Your task to perform on an android device: change notifications settings Image 0: 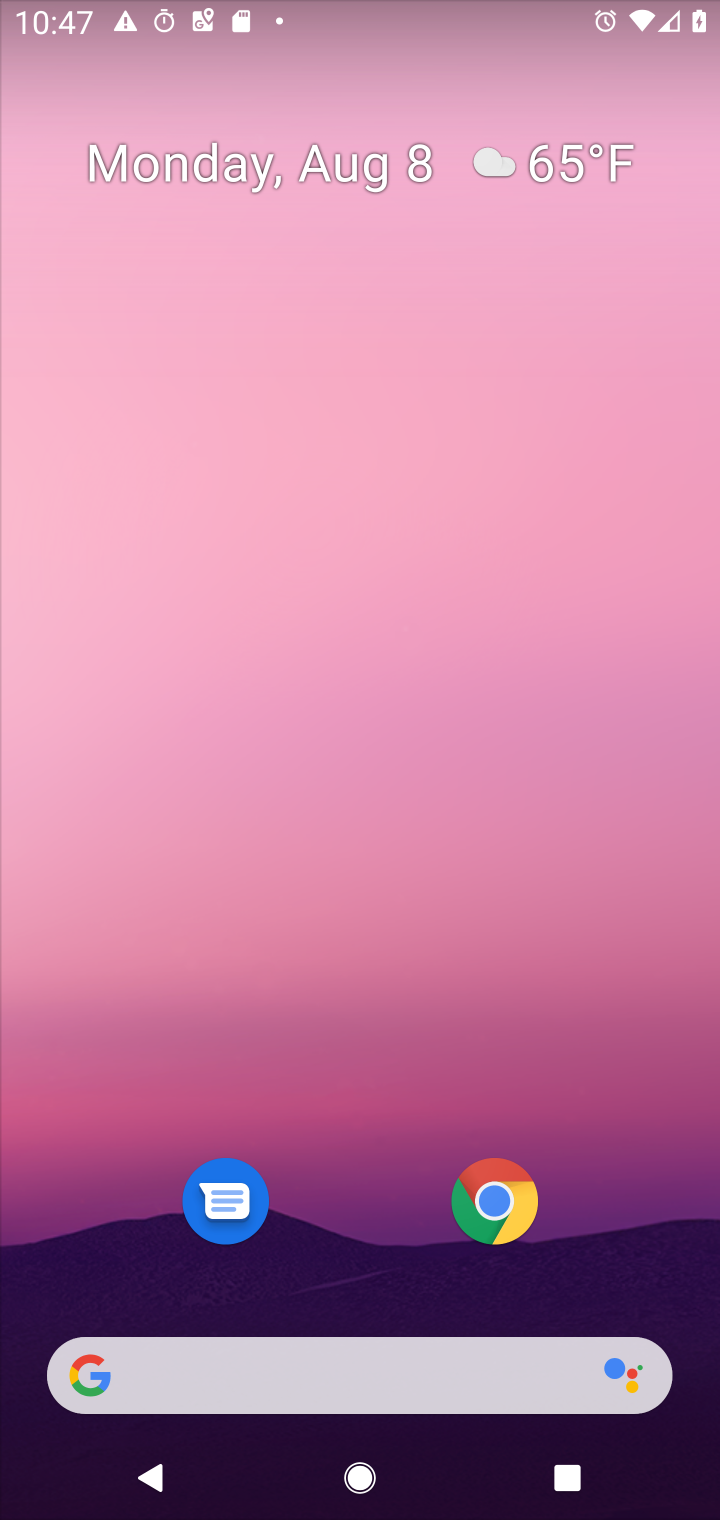
Step 0: press home button
Your task to perform on an android device: change notifications settings Image 1: 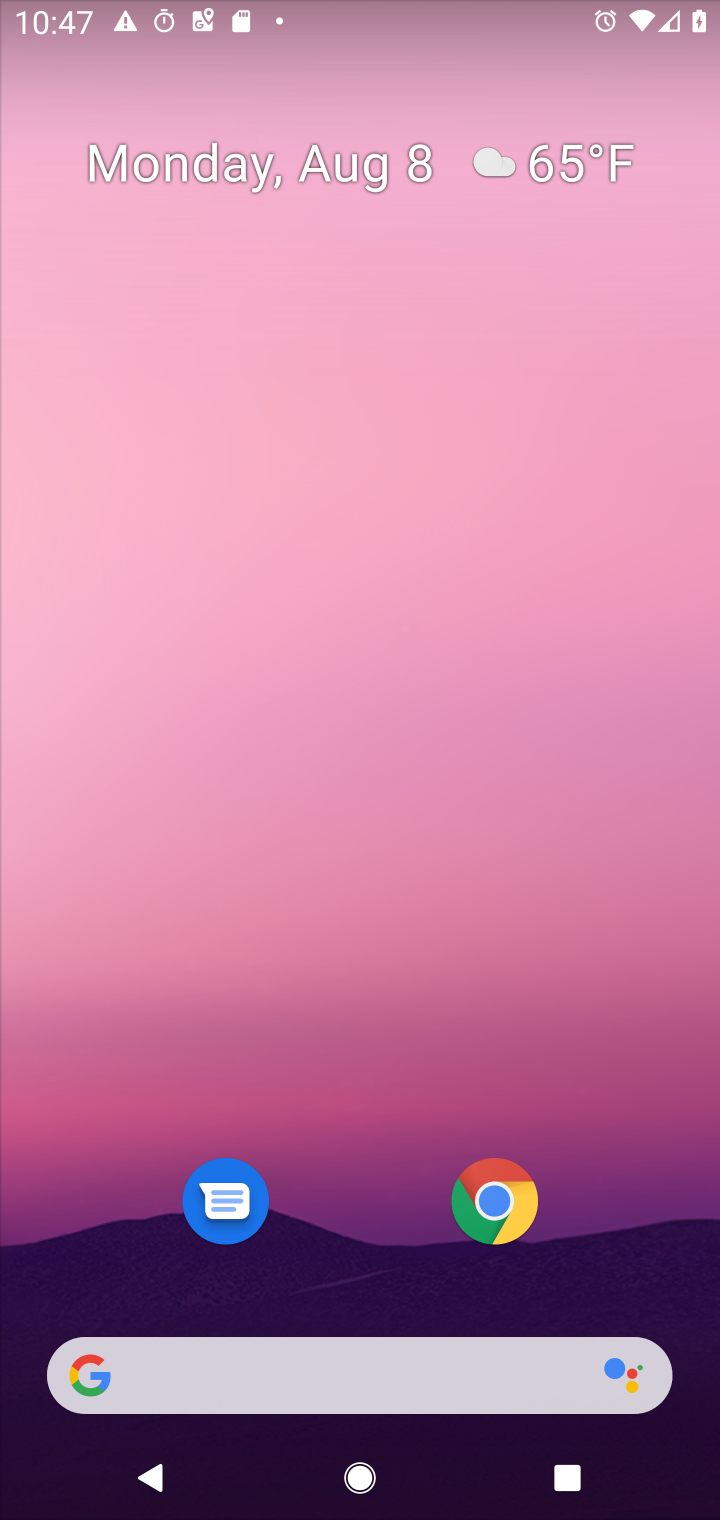
Step 1: drag from (383, 1177) to (410, 255)
Your task to perform on an android device: change notifications settings Image 2: 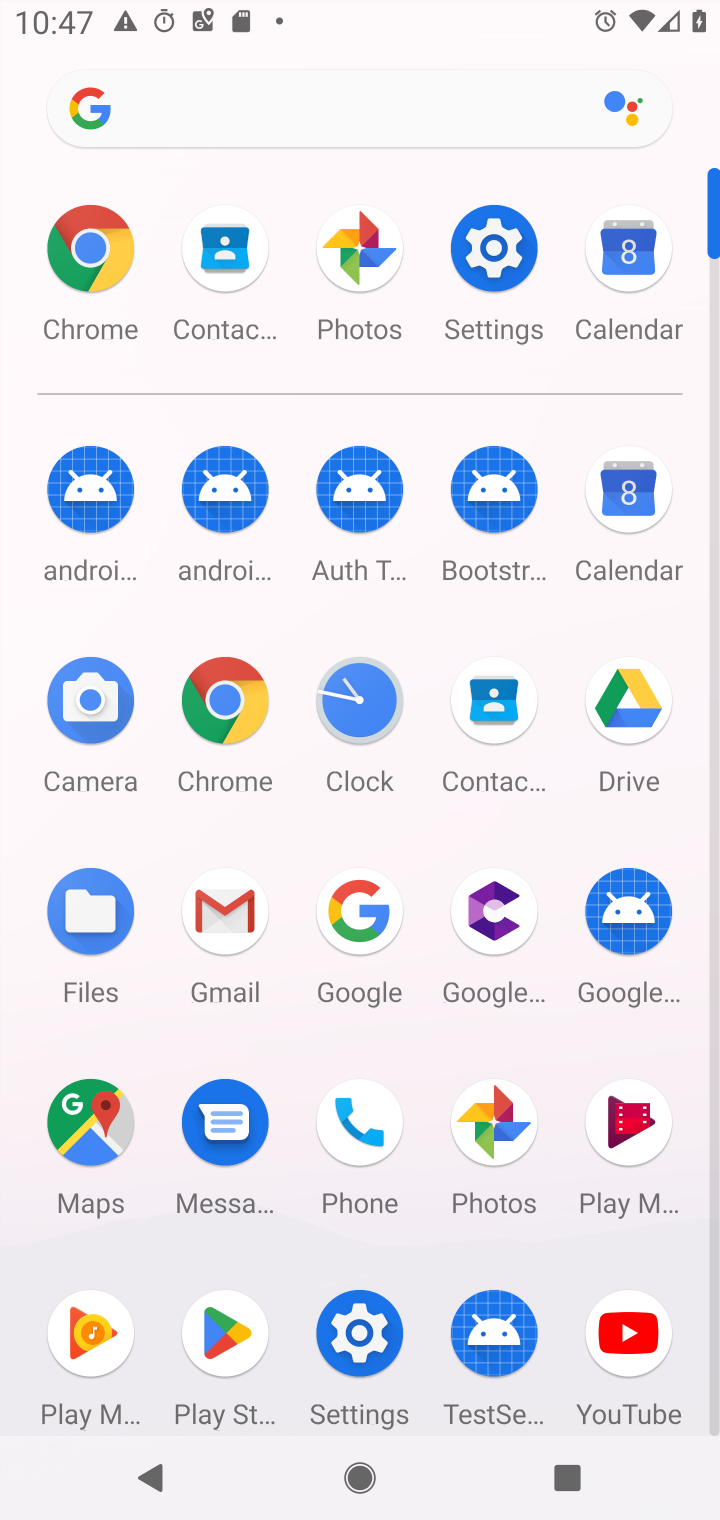
Step 2: click (496, 243)
Your task to perform on an android device: change notifications settings Image 3: 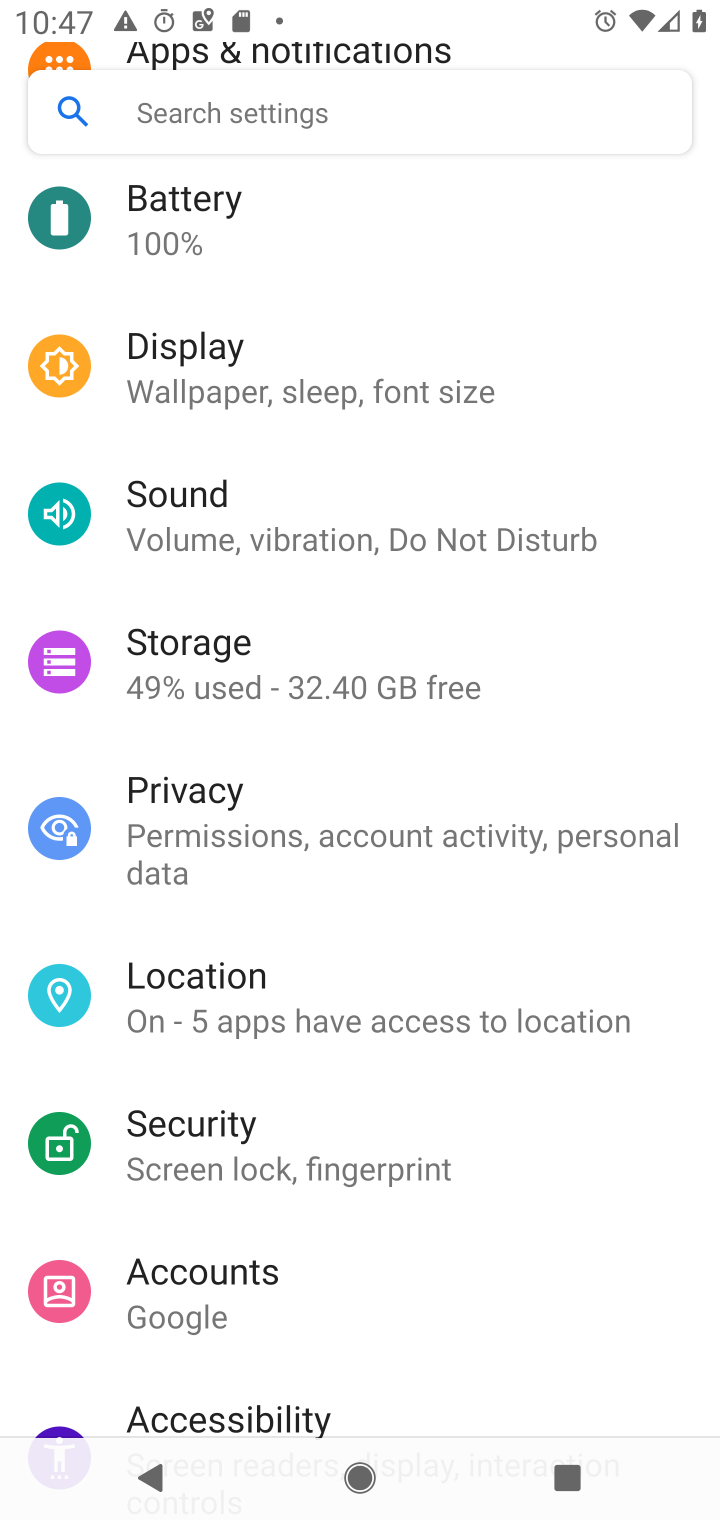
Step 3: drag from (608, 366) to (637, 577)
Your task to perform on an android device: change notifications settings Image 4: 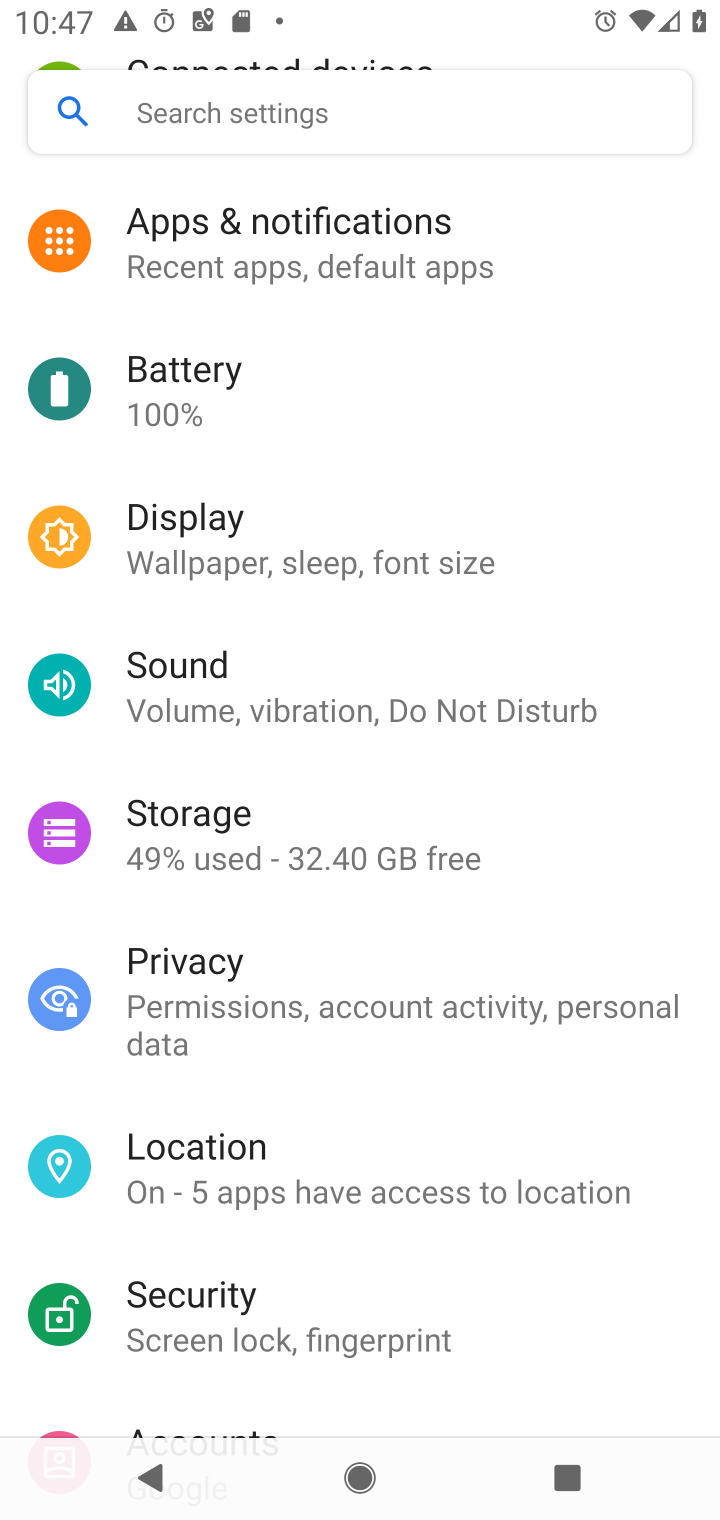
Step 4: drag from (608, 342) to (636, 493)
Your task to perform on an android device: change notifications settings Image 5: 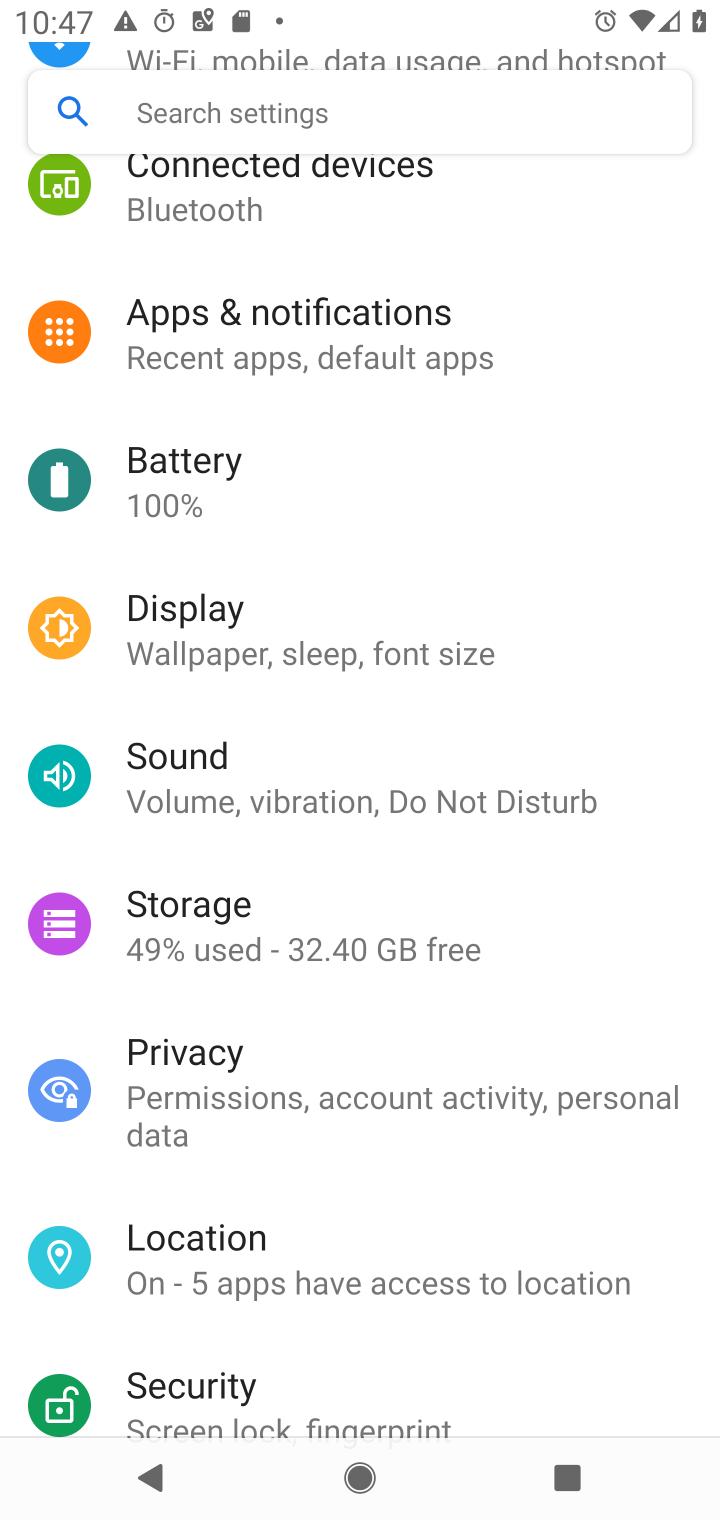
Step 5: drag from (613, 279) to (624, 499)
Your task to perform on an android device: change notifications settings Image 6: 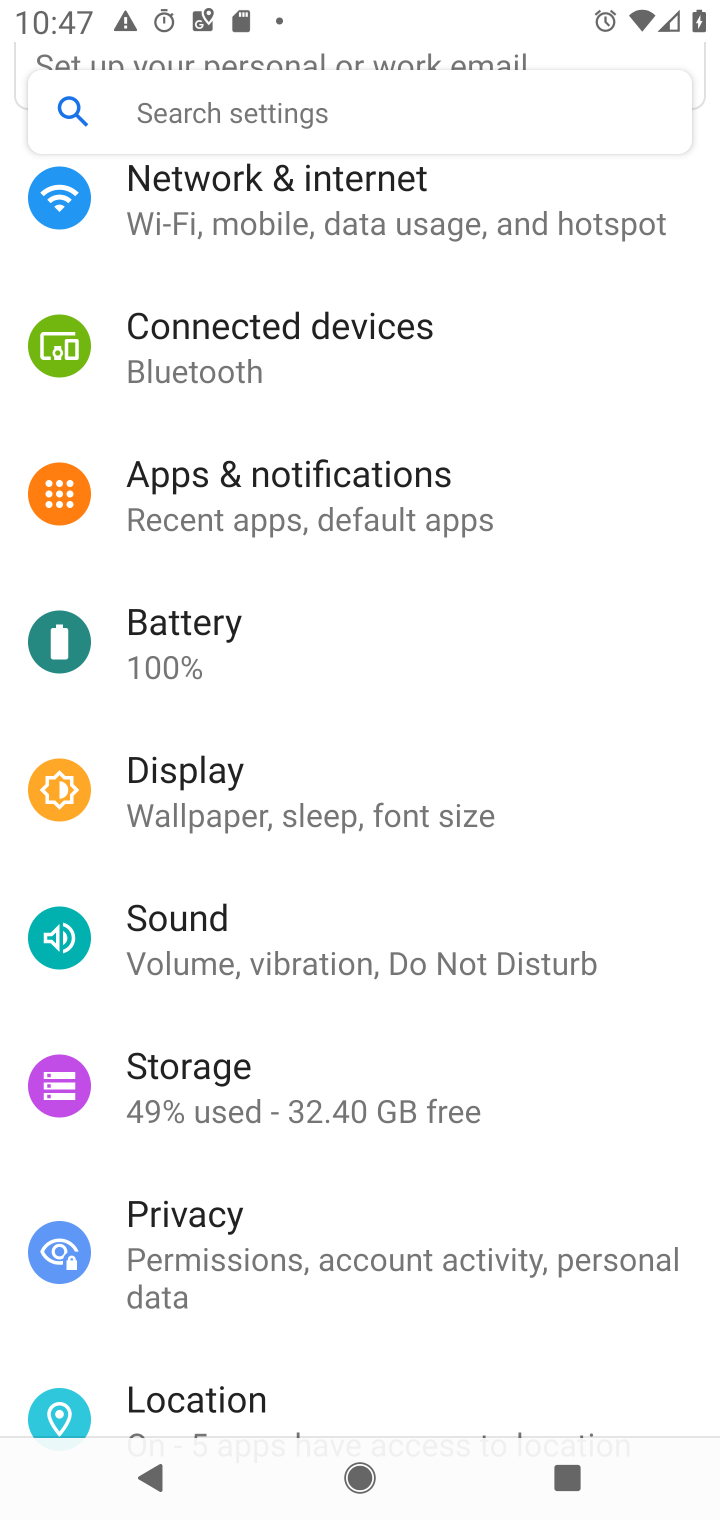
Step 6: drag from (623, 435) to (621, 594)
Your task to perform on an android device: change notifications settings Image 7: 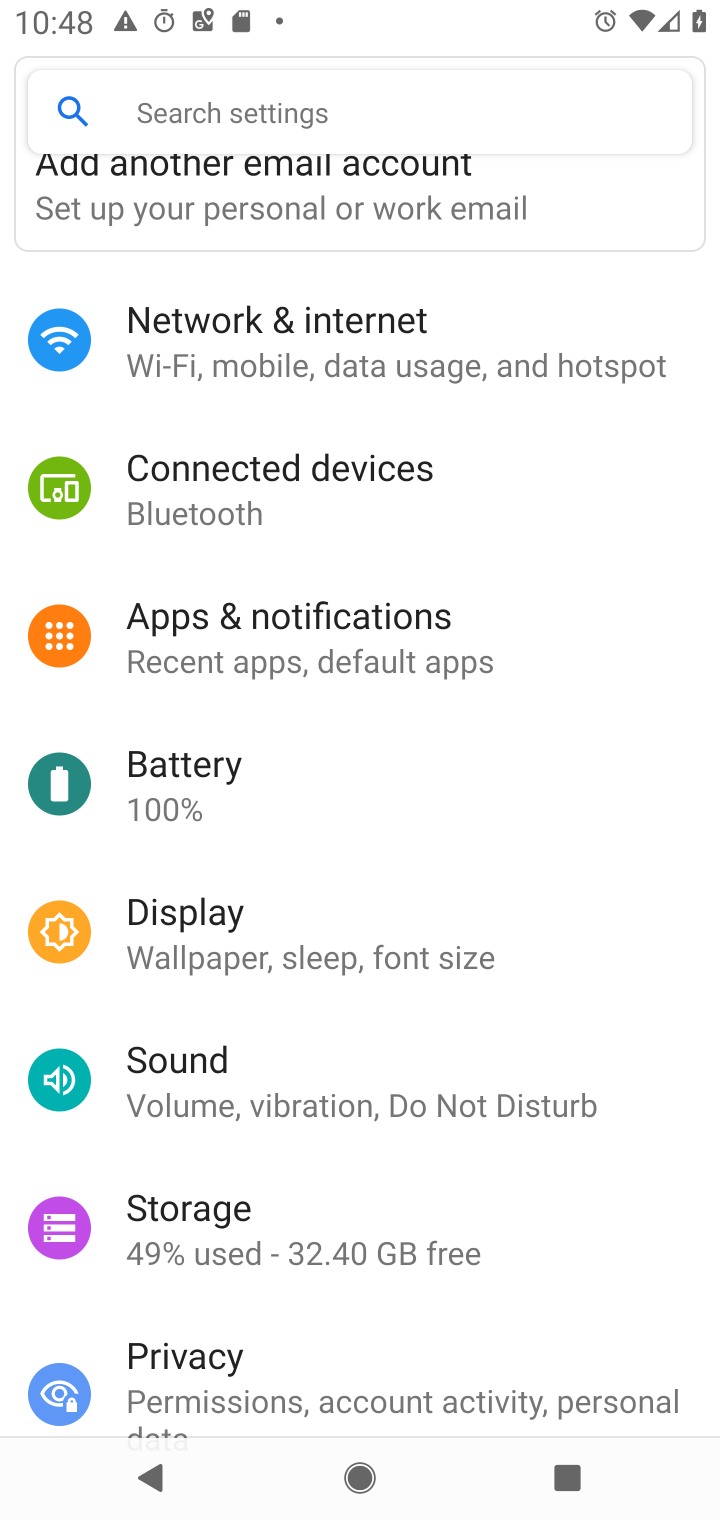
Step 7: click (479, 649)
Your task to perform on an android device: change notifications settings Image 8: 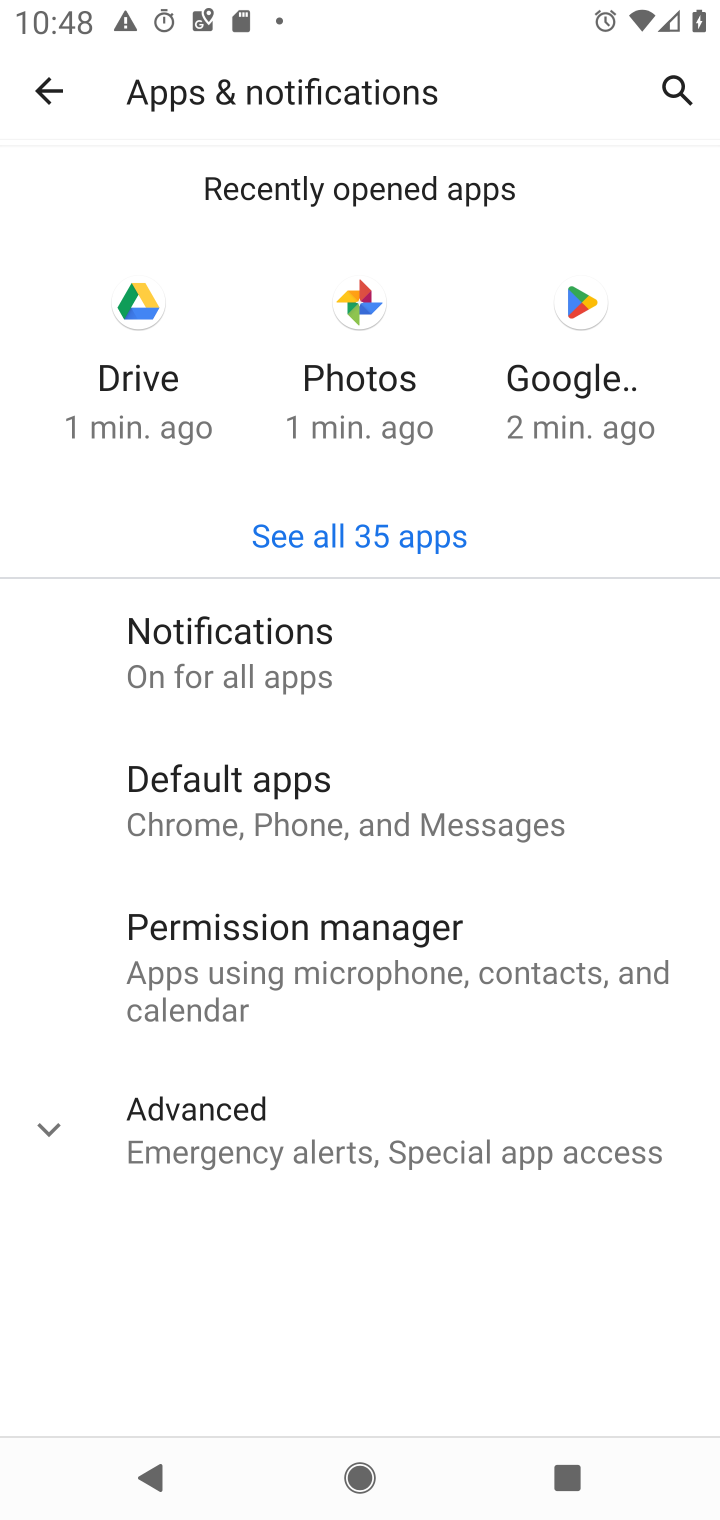
Step 8: click (250, 648)
Your task to perform on an android device: change notifications settings Image 9: 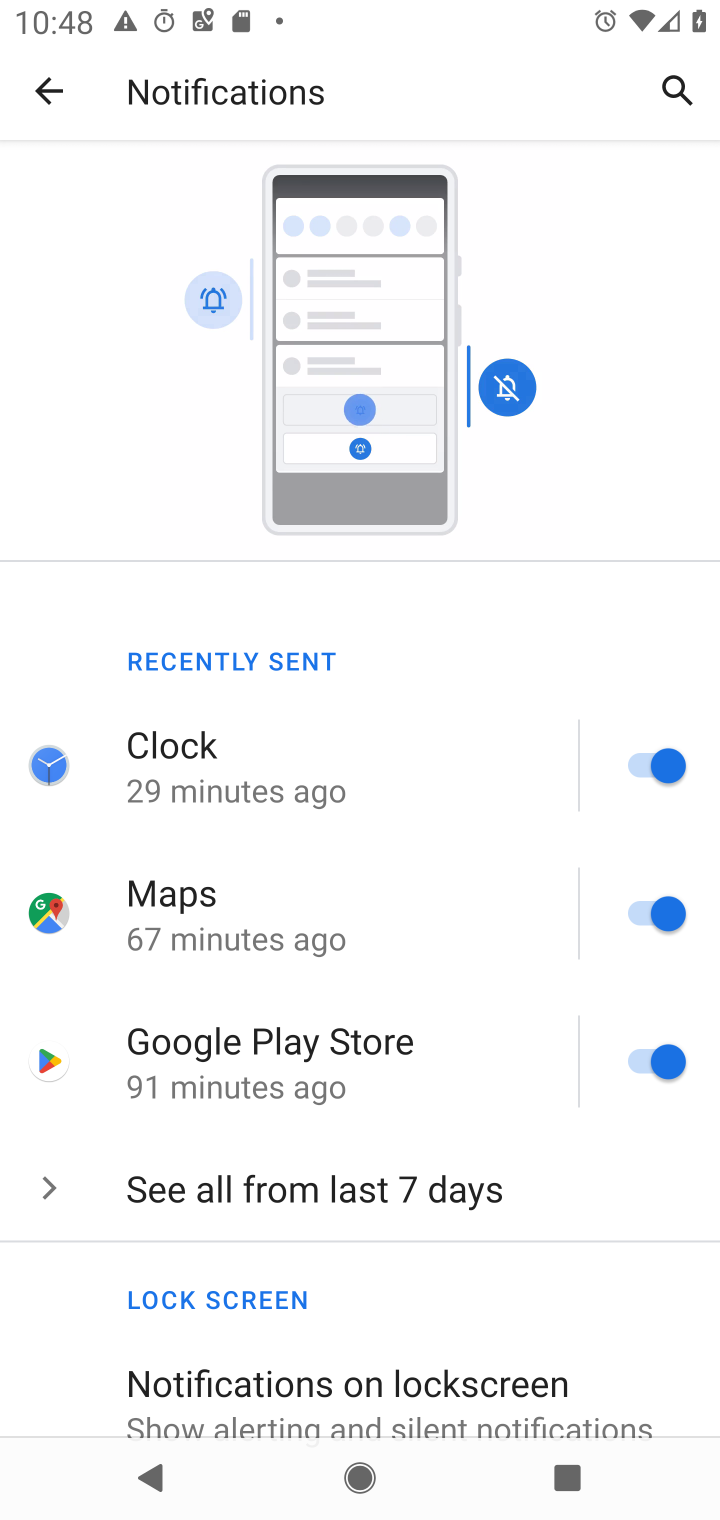
Step 9: click (671, 789)
Your task to perform on an android device: change notifications settings Image 10: 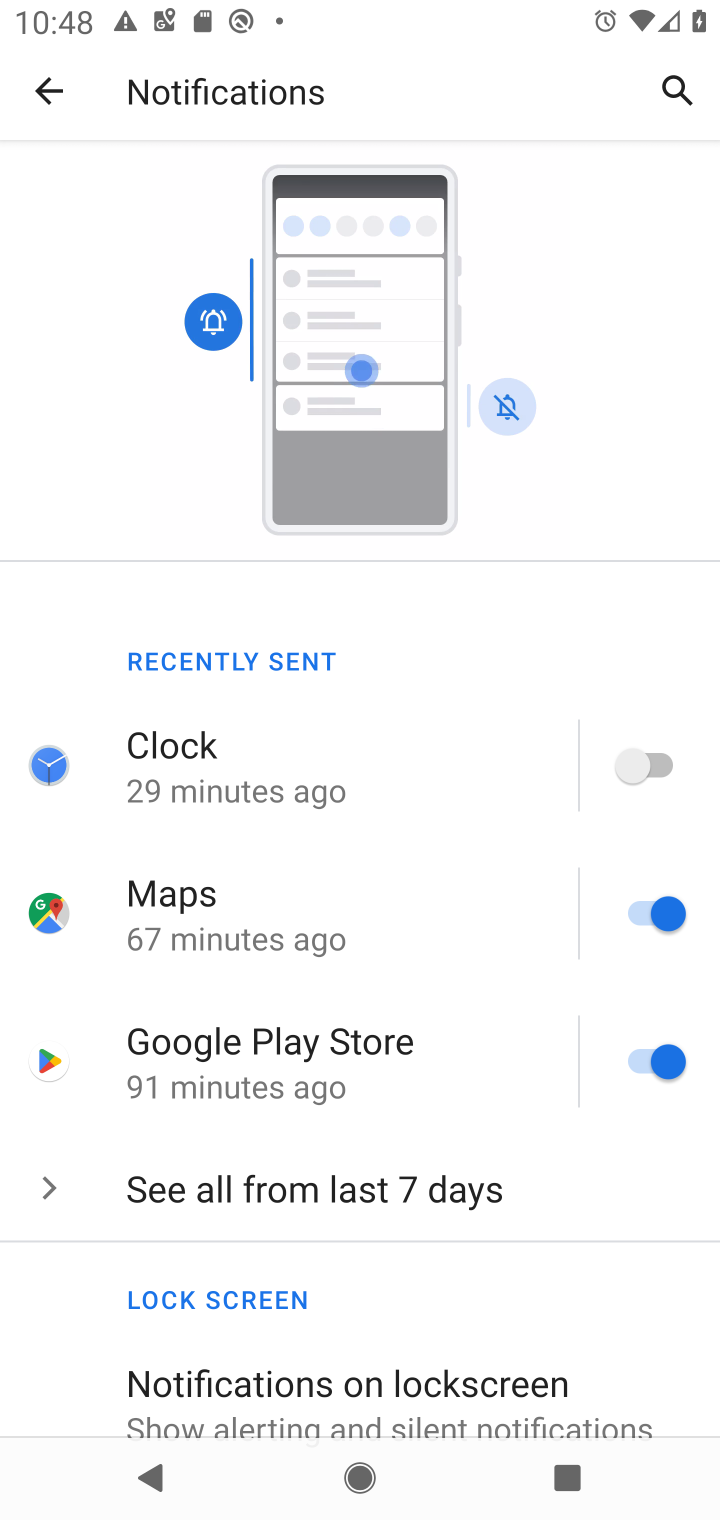
Step 10: click (656, 921)
Your task to perform on an android device: change notifications settings Image 11: 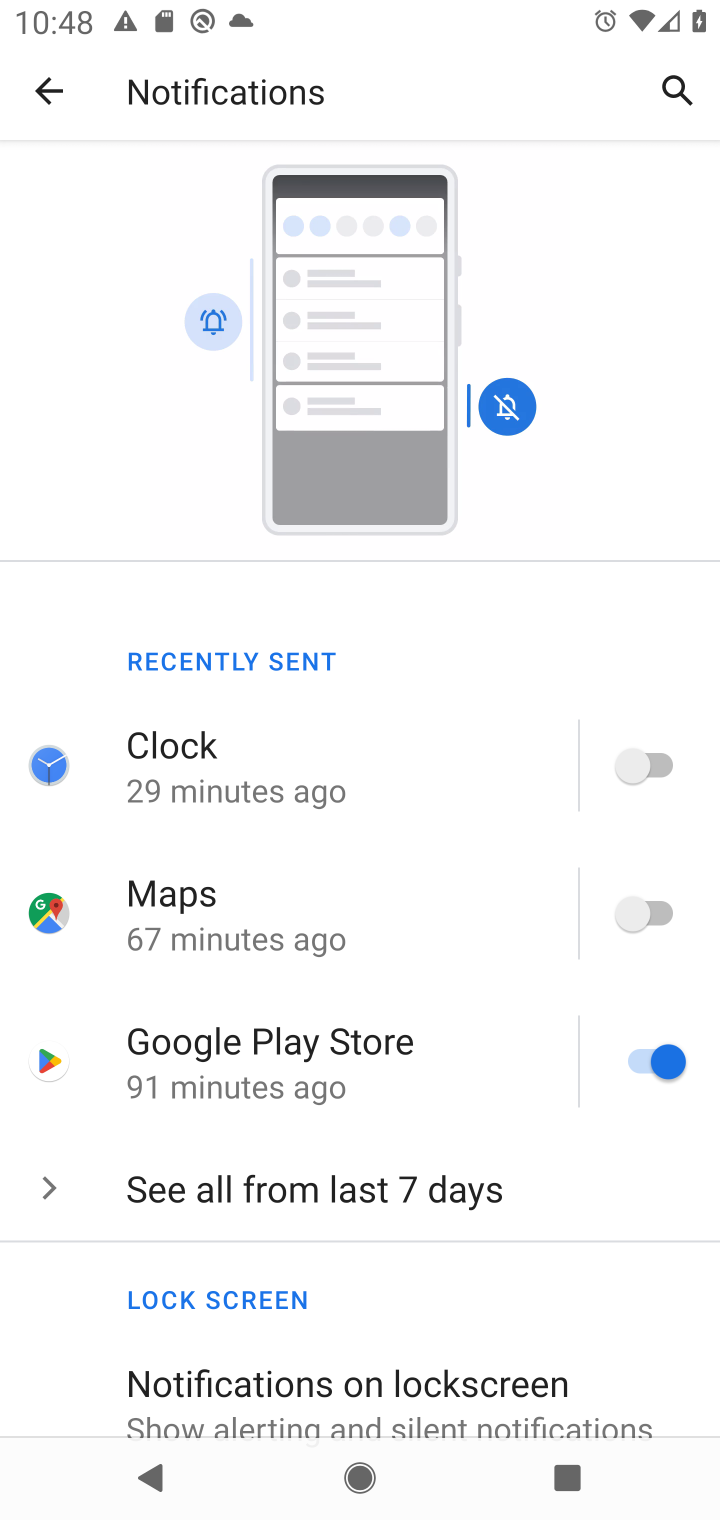
Step 11: click (663, 1071)
Your task to perform on an android device: change notifications settings Image 12: 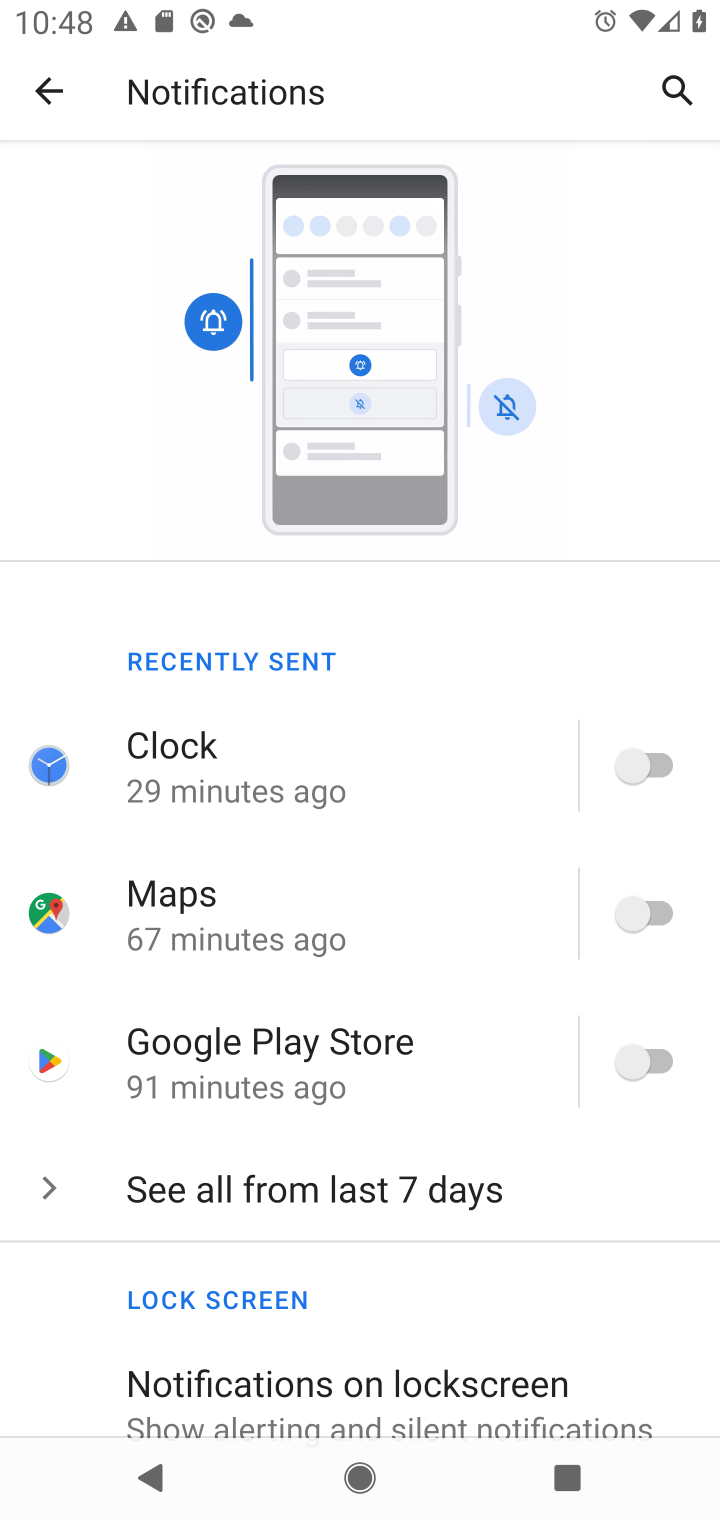
Step 12: task complete